Your task to perform on an android device: read, delete, or share a saved page in the chrome app Image 0: 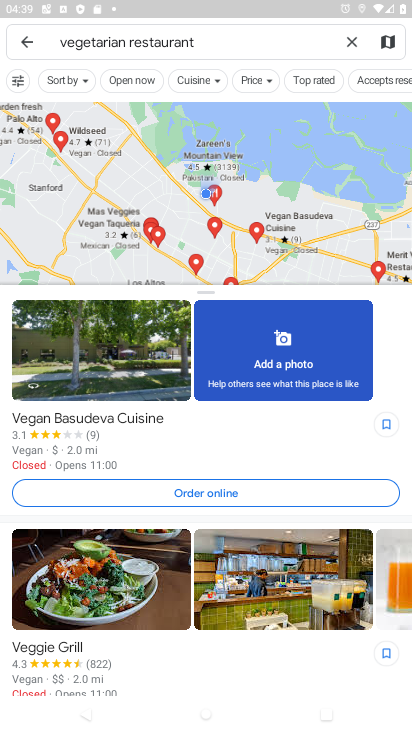
Step 0: press home button
Your task to perform on an android device: read, delete, or share a saved page in the chrome app Image 1: 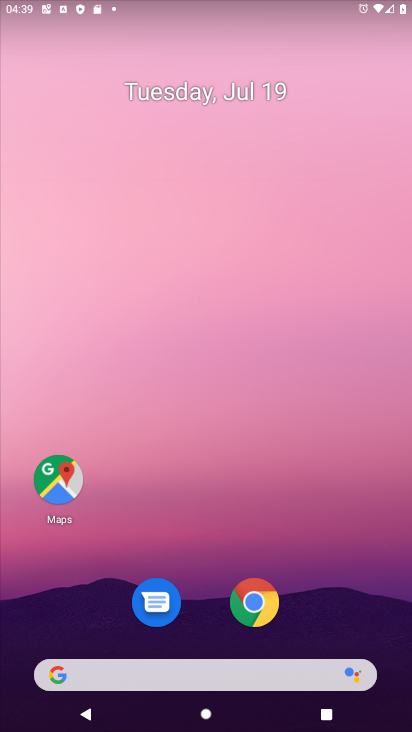
Step 1: click (251, 594)
Your task to perform on an android device: read, delete, or share a saved page in the chrome app Image 2: 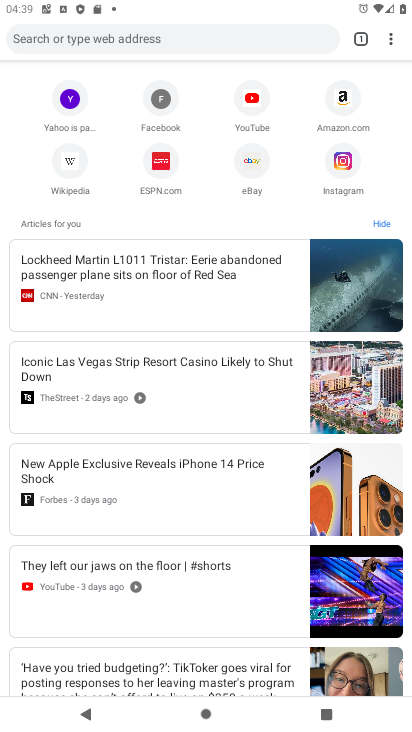
Step 2: click (397, 47)
Your task to perform on an android device: read, delete, or share a saved page in the chrome app Image 3: 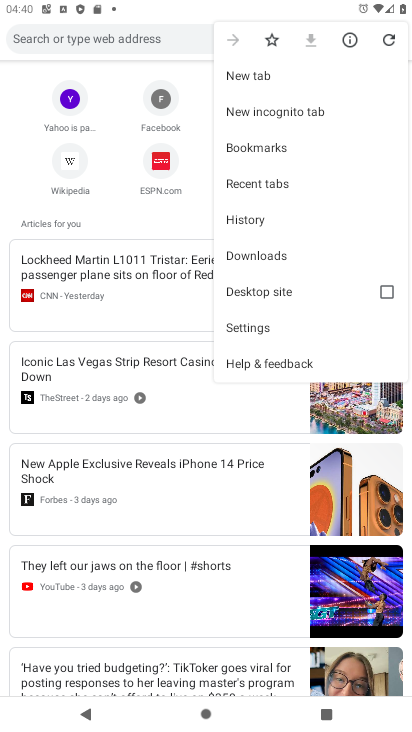
Step 3: click (273, 270)
Your task to perform on an android device: read, delete, or share a saved page in the chrome app Image 4: 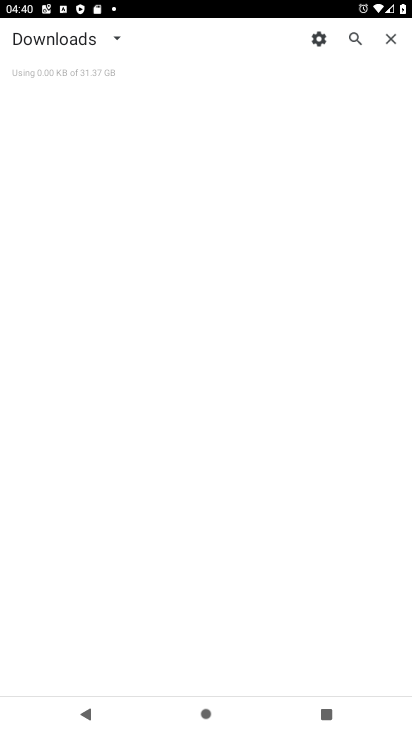
Step 4: task complete